Your task to perform on an android device: toggle wifi Image 0: 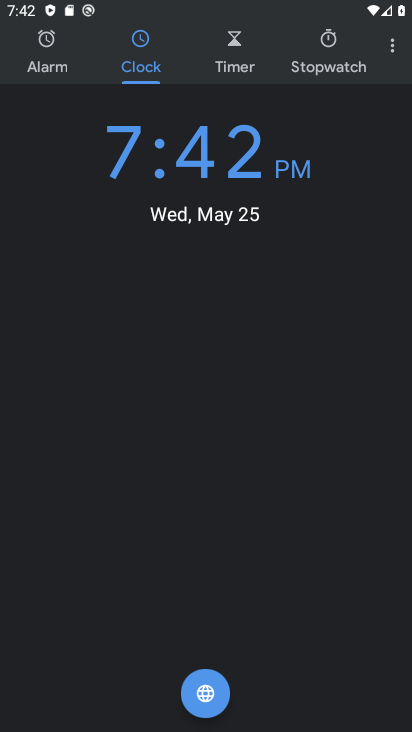
Step 0: press home button
Your task to perform on an android device: toggle wifi Image 1: 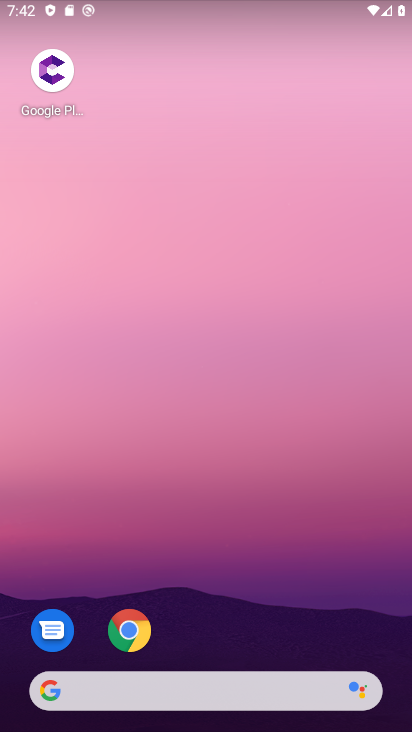
Step 1: drag from (204, 638) to (225, 183)
Your task to perform on an android device: toggle wifi Image 2: 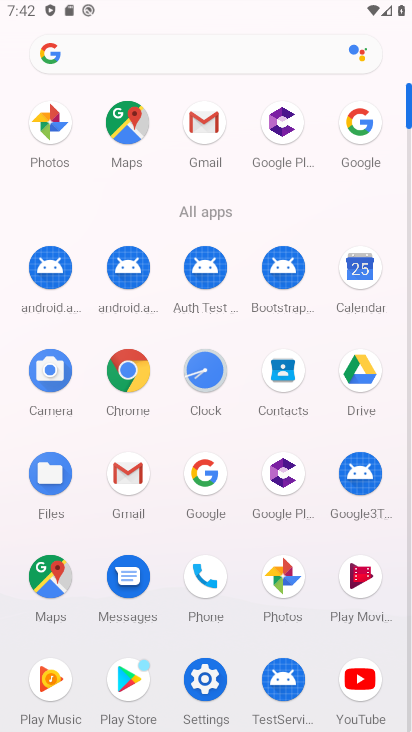
Step 2: click (199, 668)
Your task to perform on an android device: toggle wifi Image 3: 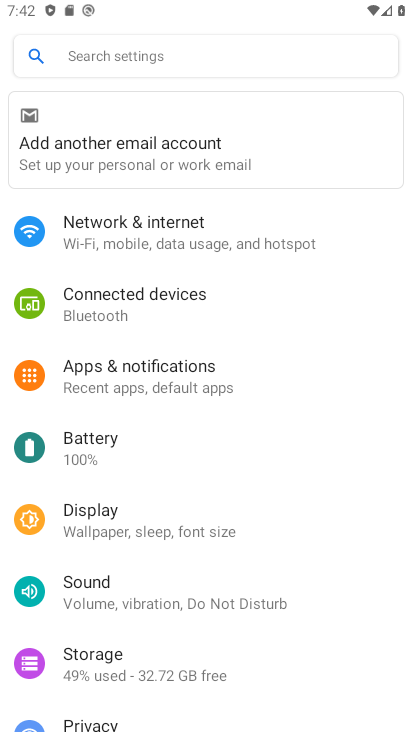
Step 3: click (136, 227)
Your task to perform on an android device: toggle wifi Image 4: 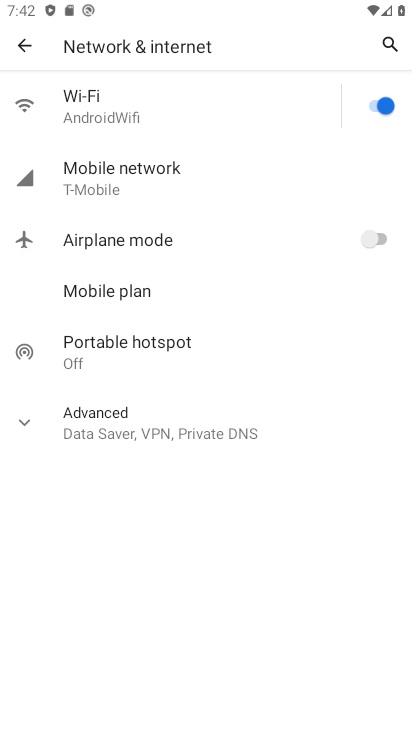
Step 4: click (374, 109)
Your task to perform on an android device: toggle wifi Image 5: 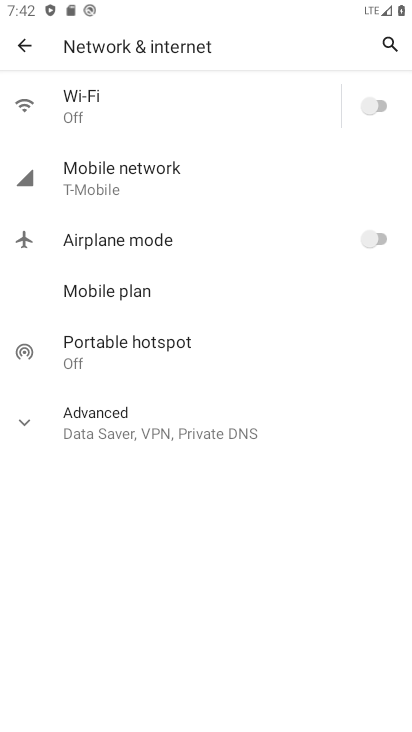
Step 5: task complete